Your task to perform on an android device: Check the weather Image 0: 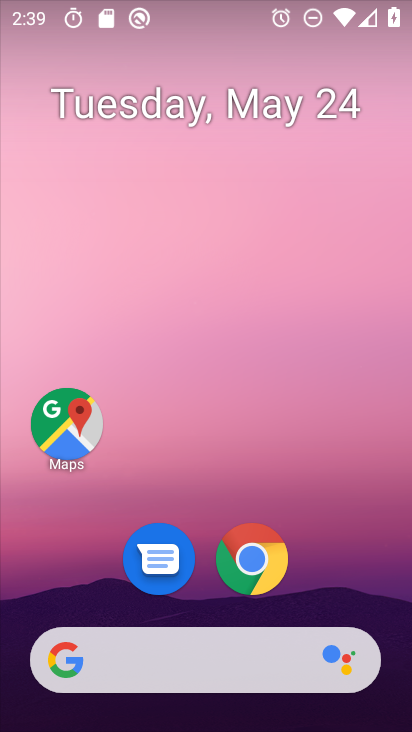
Step 0: drag from (1, 210) to (385, 214)
Your task to perform on an android device: Check the weather Image 1: 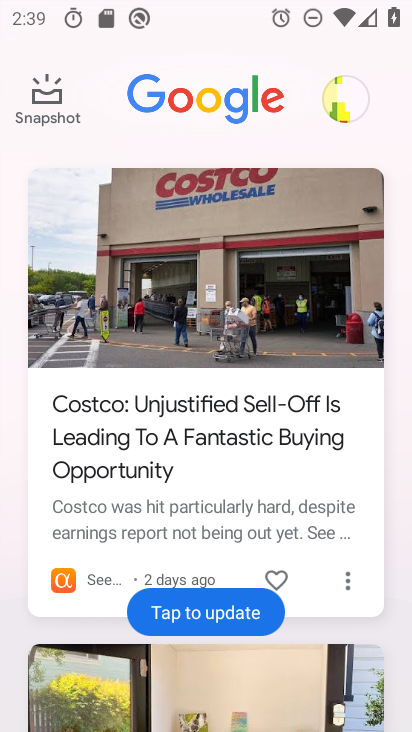
Step 1: drag from (214, 234) to (209, 544)
Your task to perform on an android device: Check the weather Image 2: 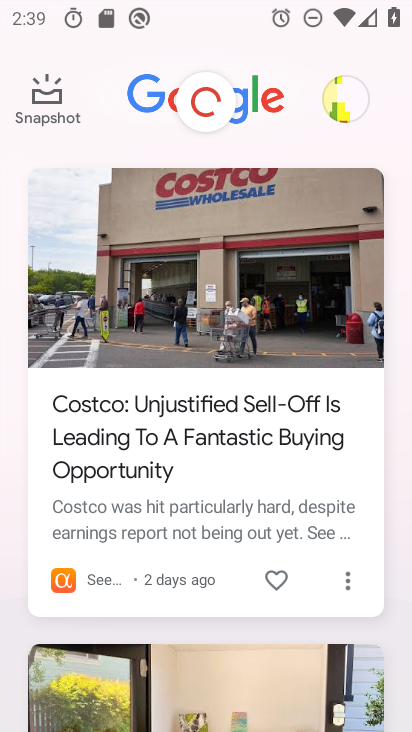
Step 2: drag from (243, 240) to (273, 542)
Your task to perform on an android device: Check the weather Image 3: 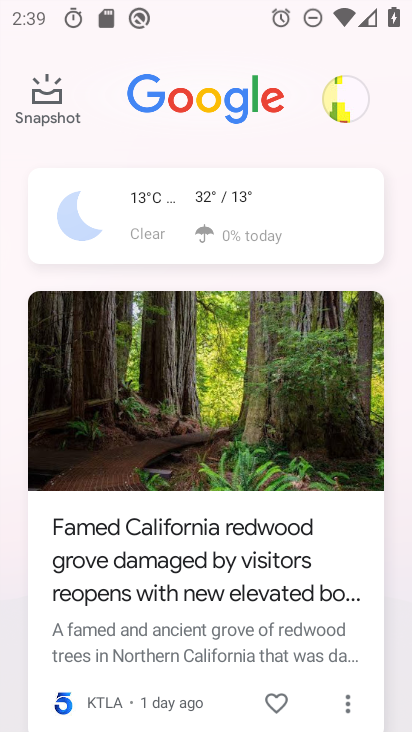
Step 3: click (216, 198)
Your task to perform on an android device: Check the weather Image 4: 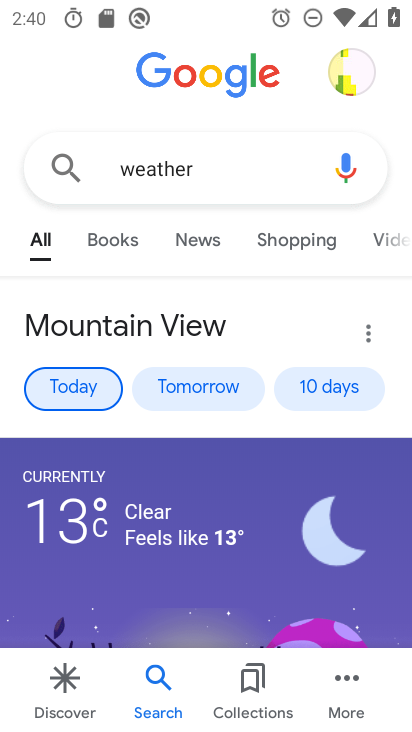
Step 4: click (77, 396)
Your task to perform on an android device: Check the weather Image 5: 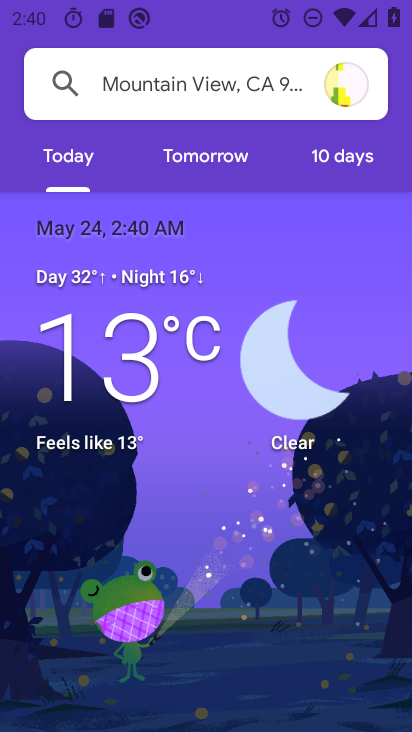
Step 5: task complete